Your task to perform on an android device: Go to Yahoo.com Image 0: 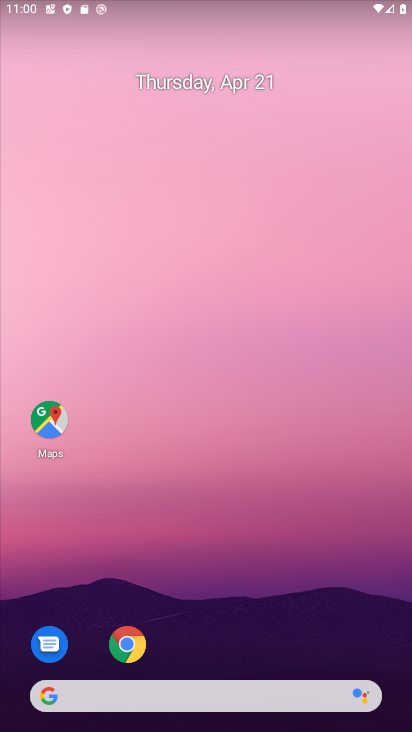
Step 0: click (129, 649)
Your task to perform on an android device: Go to Yahoo.com Image 1: 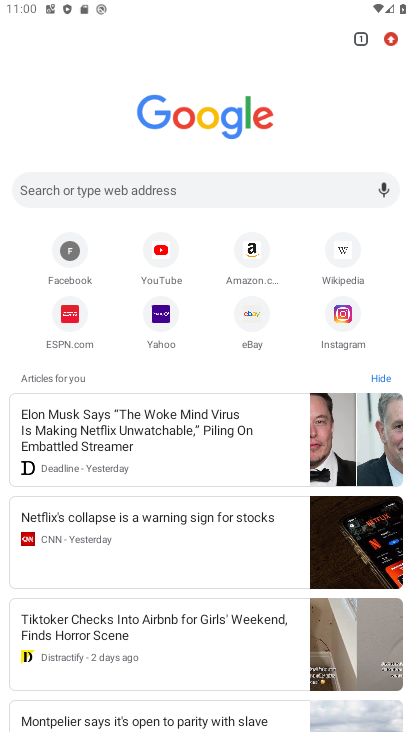
Step 1: click (169, 323)
Your task to perform on an android device: Go to Yahoo.com Image 2: 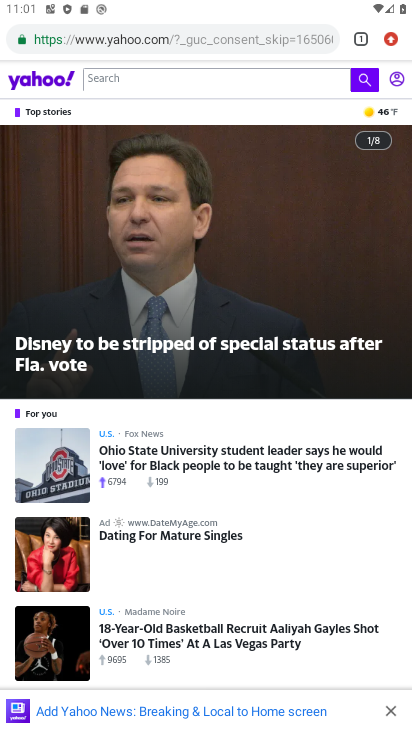
Step 2: task complete